Your task to perform on an android device: When is my next meeting? Image 0: 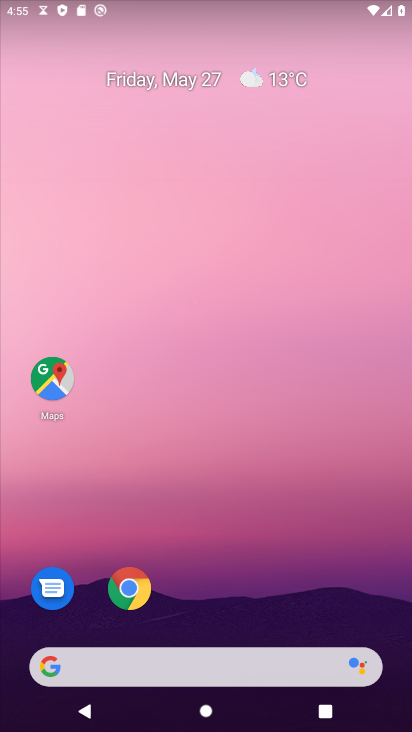
Step 0: click (179, 664)
Your task to perform on an android device: When is my next meeting? Image 1: 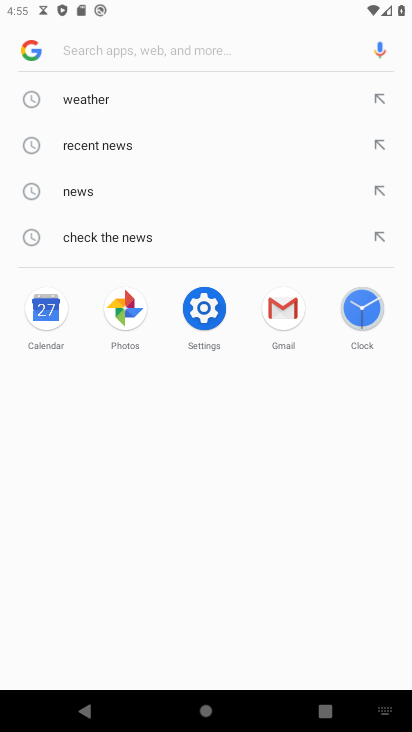
Step 1: press back button
Your task to perform on an android device: When is my next meeting? Image 2: 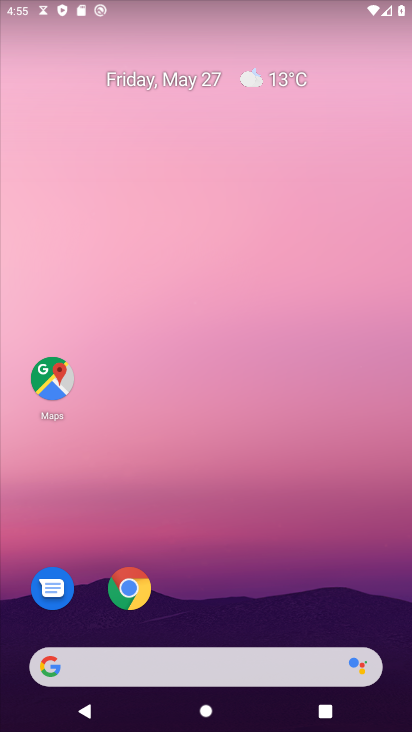
Step 2: drag from (207, 604) to (290, 182)
Your task to perform on an android device: When is my next meeting? Image 3: 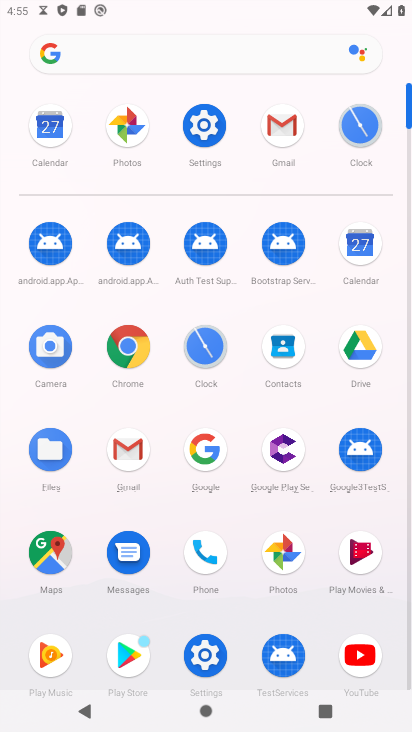
Step 3: click (365, 243)
Your task to perform on an android device: When is my next meeting? Image 4: 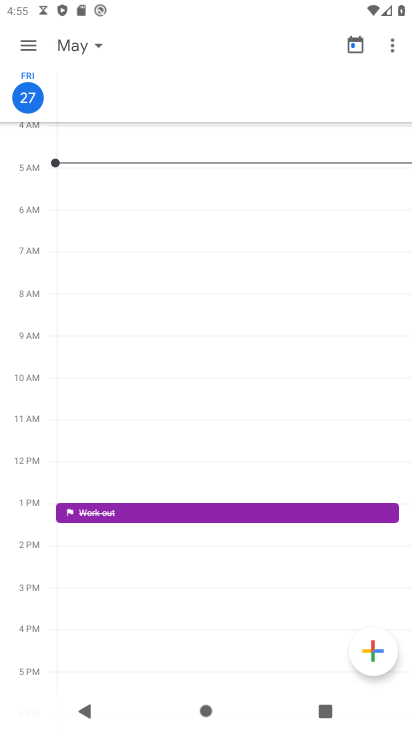
Step 4: click (19, 44)
Your task to perform on an android device: When is my next meeting? Image 5: 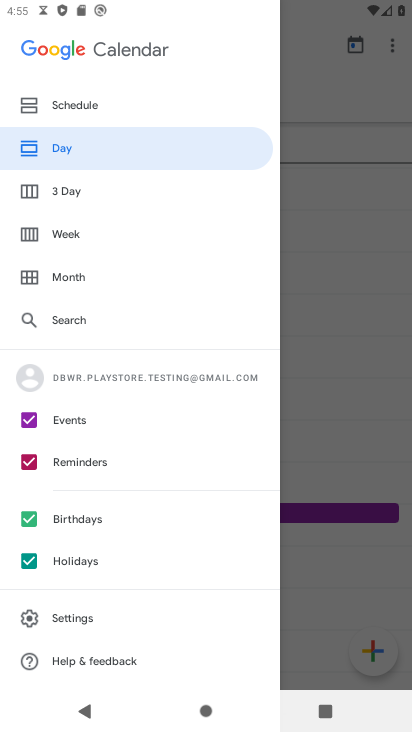
Step 5: click (78, 100)
Your task to perform on an android device: When is my next meeting? Image 6: 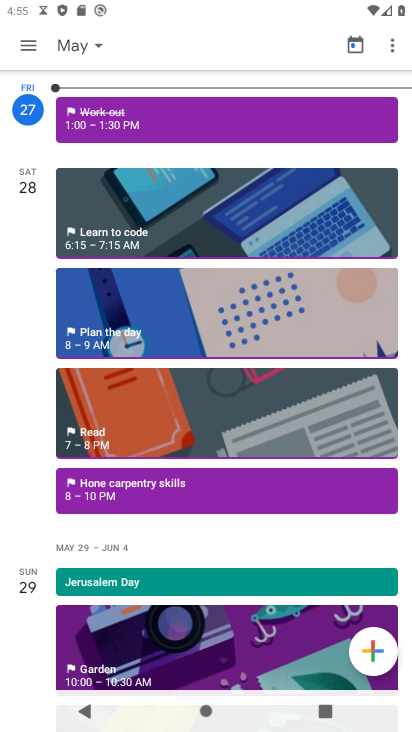
Step 6: task complete